Your task to perform on an android device: star an email in the gmail app Image 0: 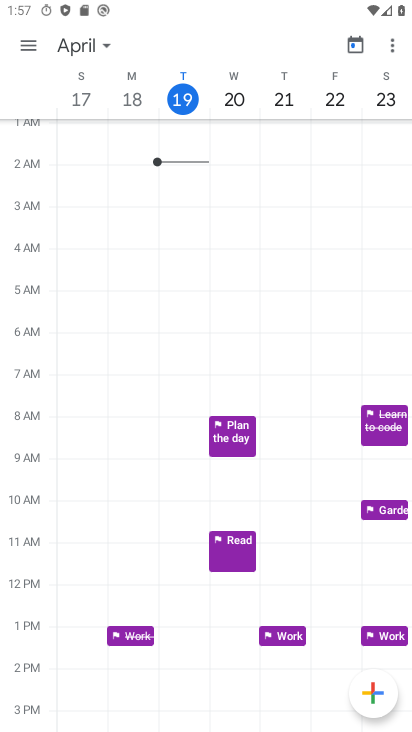
Step 0: press home button
Your task to perform on an android device: star an email in the gmail app Image 1: 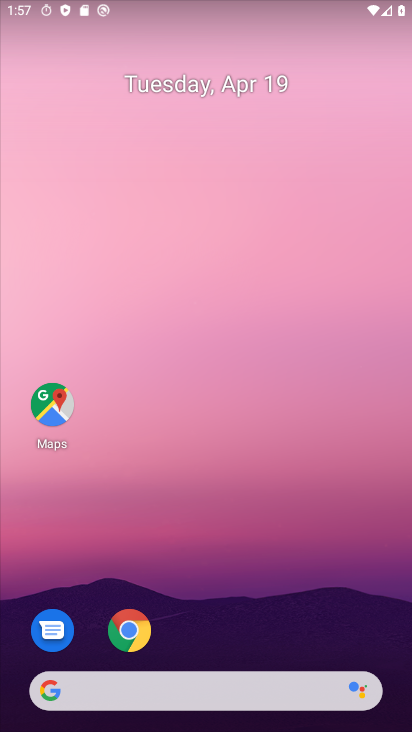
Step 1: drag from (261, 614) to (278, 95)
Your task to perform on an android device: star an email in the gmail app Image 2: 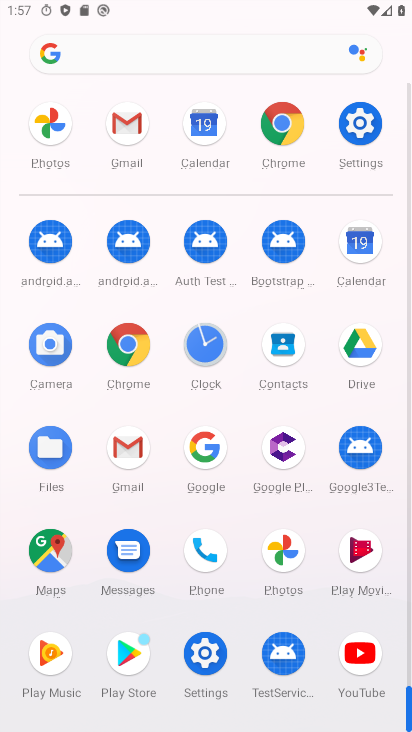
Step 2: click (123, 131)
Your task to perform on an android device: star an email in the gmail app Image 3: 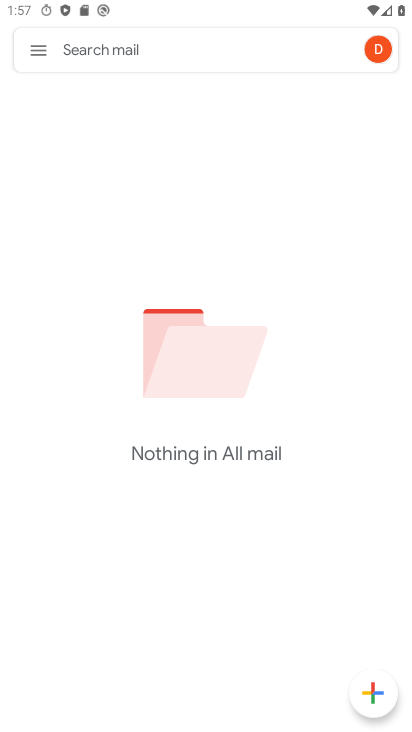
Step 3: click (39, 50)
Your task to perform on an android device: star an email in the gmail app Image 4: 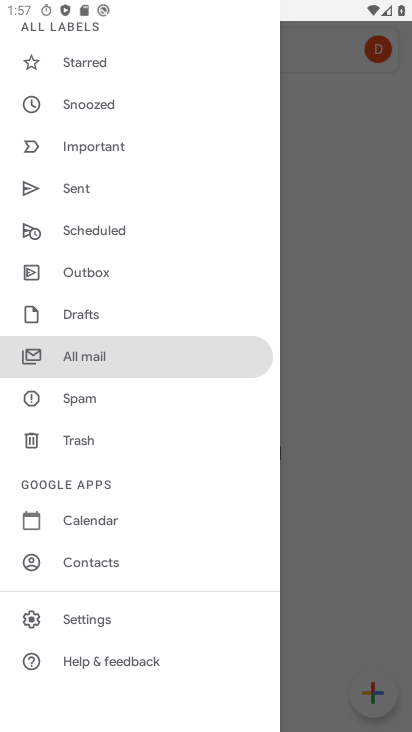
Step 4: drag from (161, 214) to (144, 516)
Your task to perform on an android device: star an email in the gmail app Image 5: 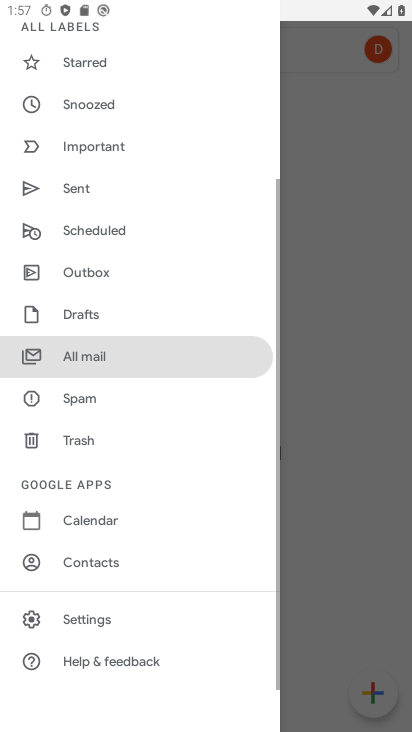
Step 5: drag from (161, 179) to (162, 512)
Your task to perform on an android device: star an email in the gmail app Image 6: 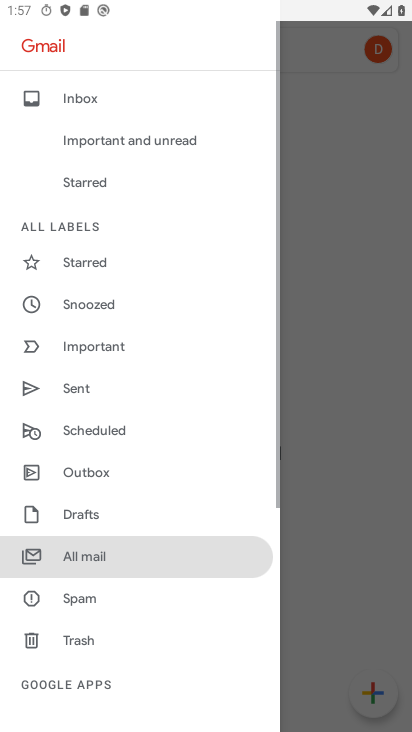
Step 6: drag from (180, 86) to (184, 475)
Your task to perform on an android device: star an email in the gmail app Image 7: 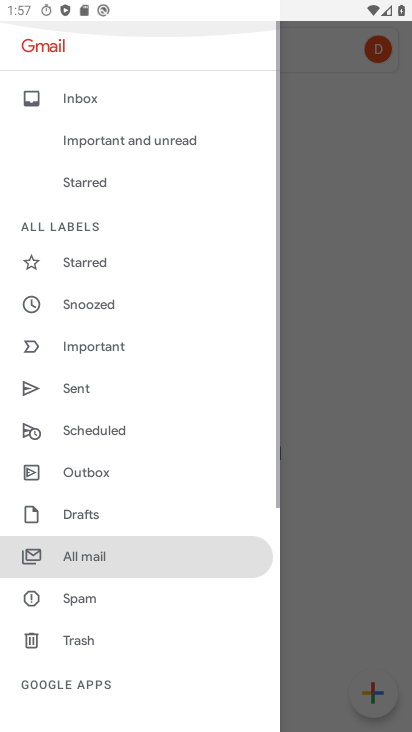
Step 7: click (104, 98)
Your task to perform on an android device: star an email in the gmail app Image 8: 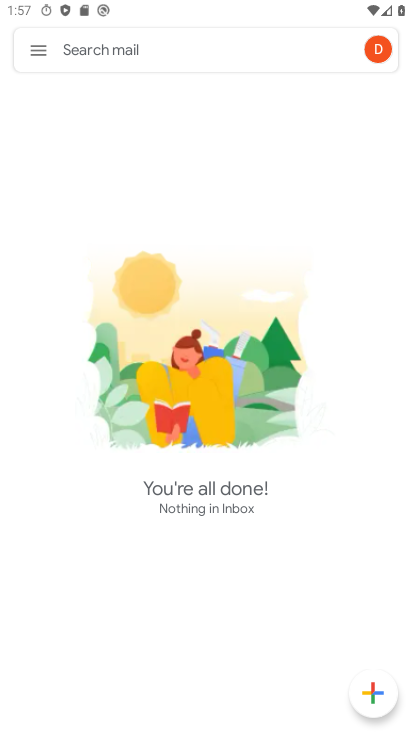
Step 8: task complete